Your task to perform on an android device: Open eBay Image 0: 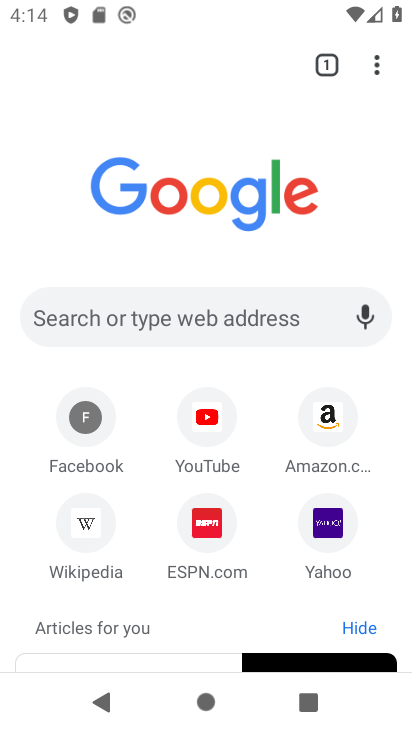
Step 0: click (244, 325)
Your task to perform on an android device: Open eBay Image 1: 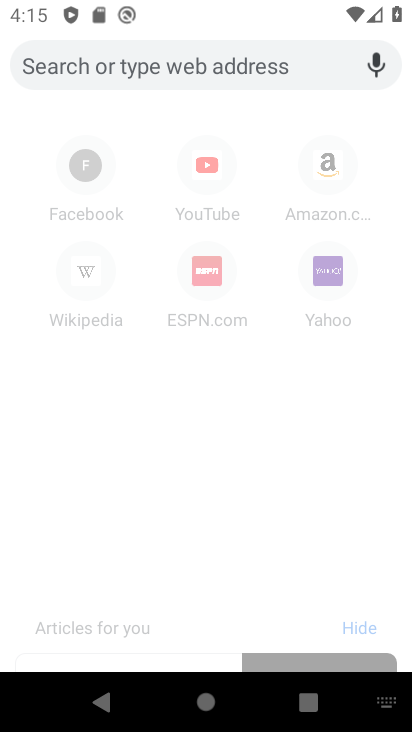
Step 1: type "eBay"
Your task to perform on an android device: Open eBay Image 2: 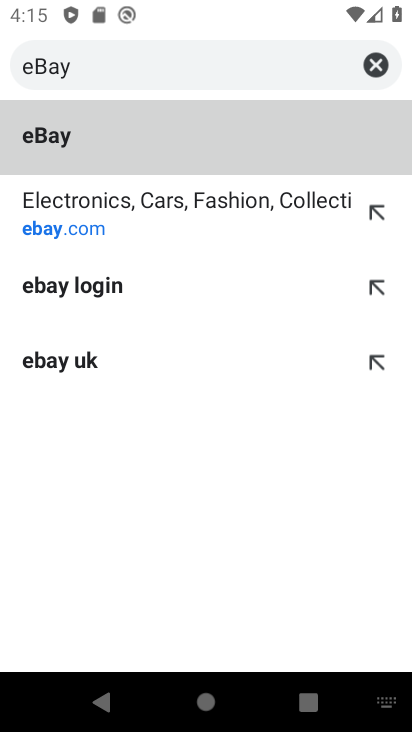
Step 2: click (192, 163)
Your task to perform on an android device: Open eBay Image 3: 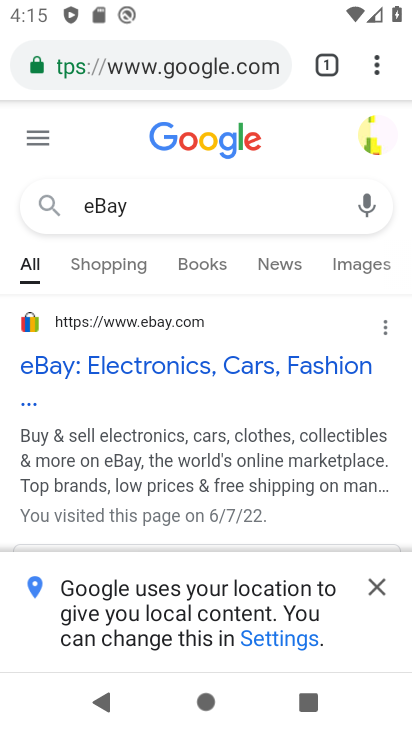
Step 3: click (254, 380)
Your task to perform on an android device: Open eBay Image 4: 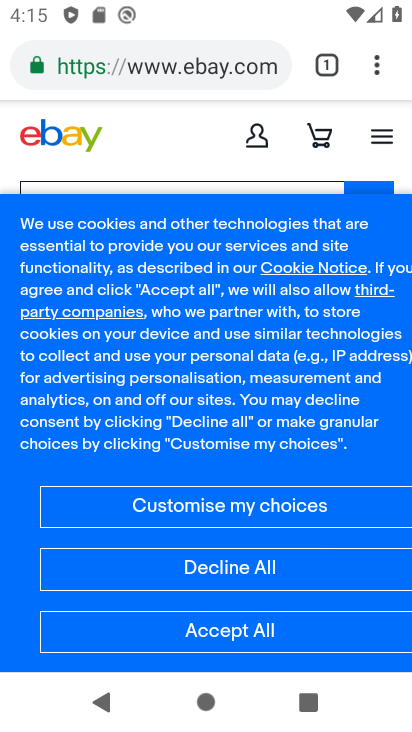
Step 4: click (263, 642)
Your task to perform on an android device: Open eBay Image 5: 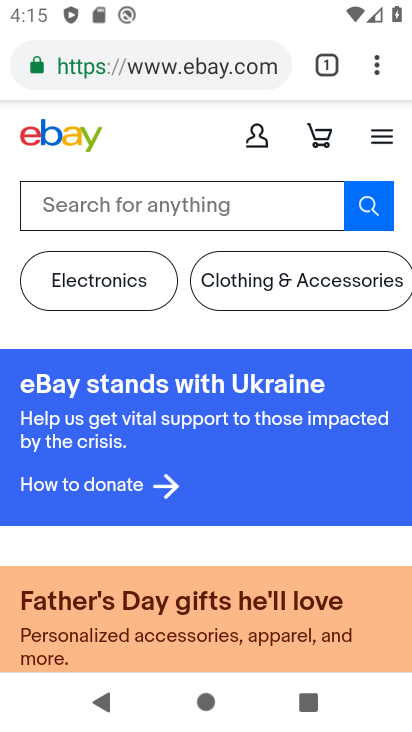
Step 5: task complete